Your task to perform on an android device: change your default location settings in chrome Image 0: 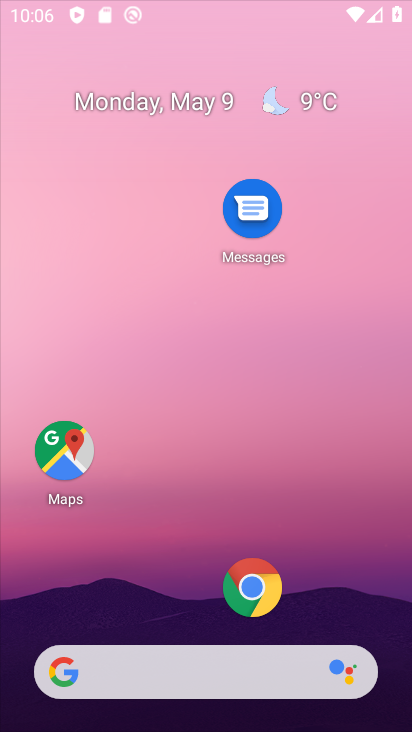
Step 0: drag from (222, 620) to (280, 107)
Your task to perform on an android device: change your default location settings in chrome Image 1: 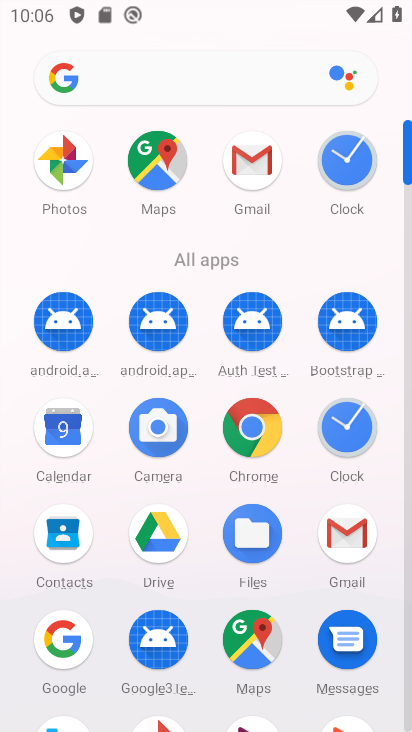
Step 1: click (259, 435)
Your task to perform on an android device: change your default location settings in chrome Image 2: 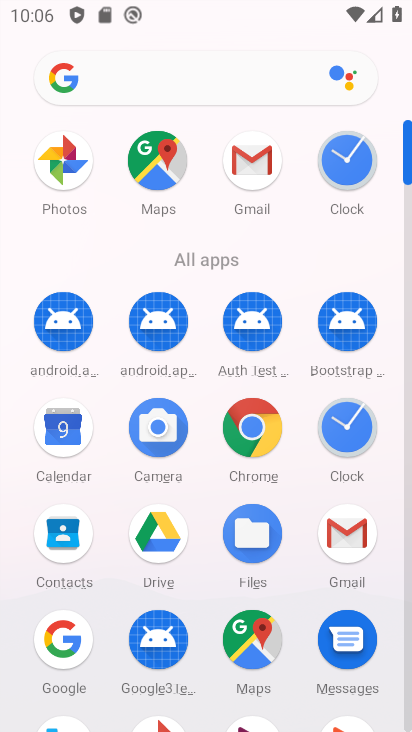
Step 2: click (259, 435)
Your task to perform on an android device: change your default location settings in chrome Image 3: 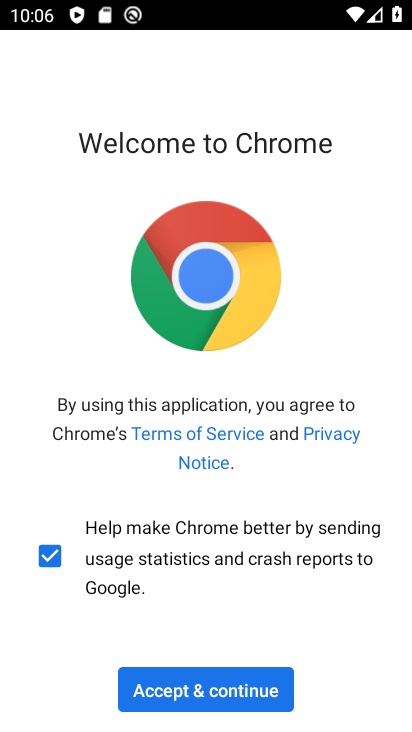
Step 3: click (230, 688)
Your task to perform on an android device: change your default location settings in chrome Image 4: 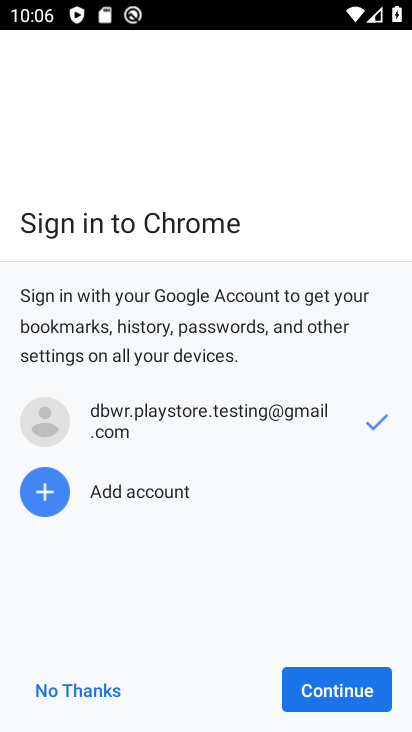
Step 4: click (330, 703)
Your task to perform on an android device: change your default location settings in chrome Image 5: 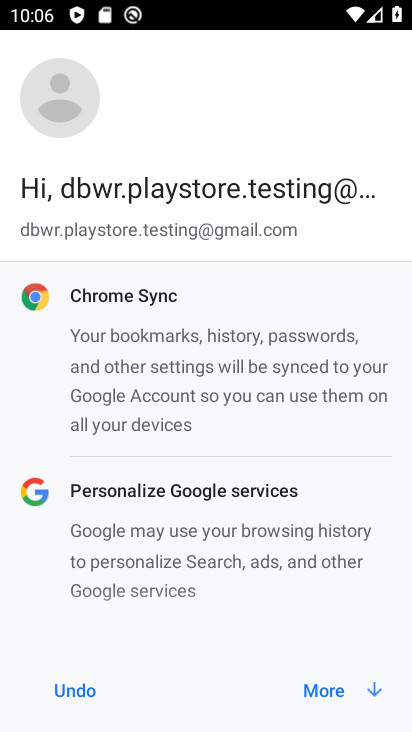
Step 5: click (326, 699)
Your task to perform on an android device: change your default location settings in chrome Image 6: 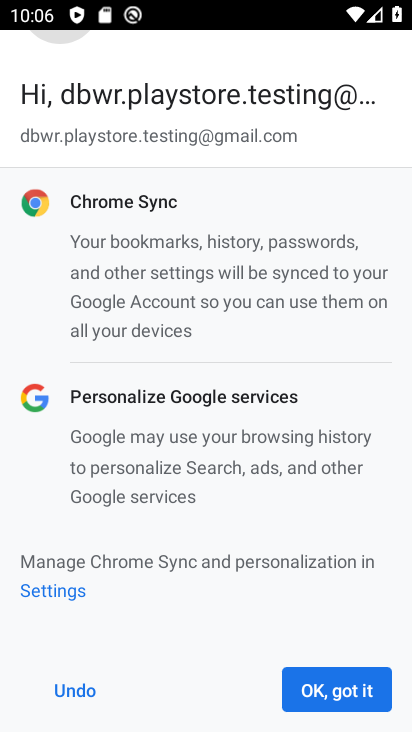
Step 6: click (323, 692)
Your task to perform on an android device: change your default location settings in chrome Image 7: 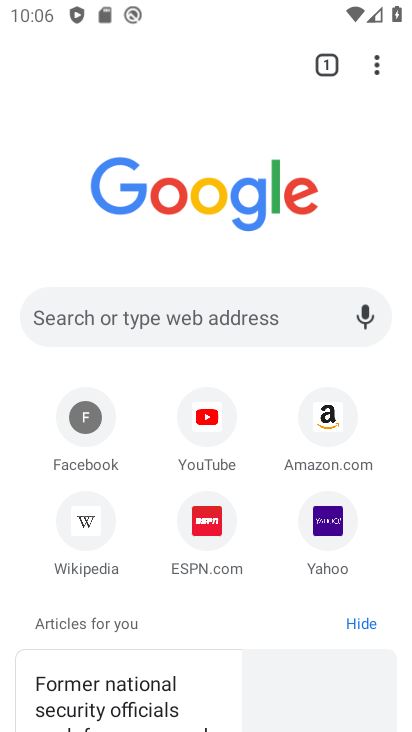
Step 7: click (376, 75)
Your task to perform on an android device: change your default location settings in chrome Image 8: 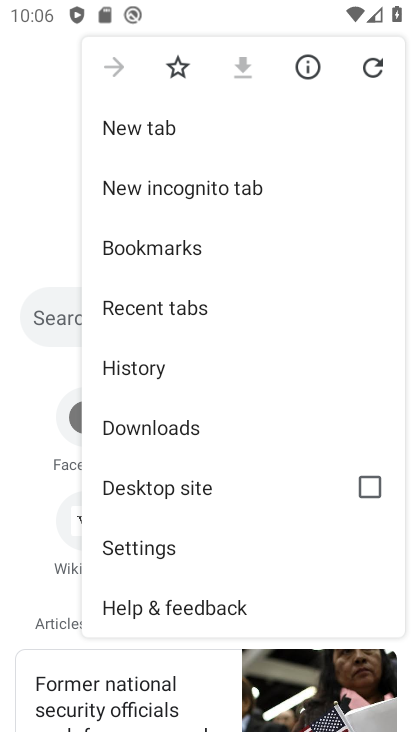
Step 8: click (181, 547)
Your task to perform on an android device: change your default location settings in chrome Image 9: 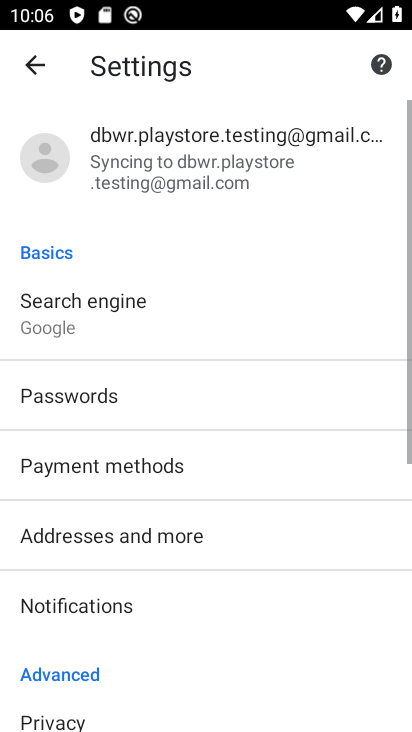
Step 9: drag from (247, 641) to (328, 170)
Your task to perform on an android device: change your default location settings in chrome Image 10: 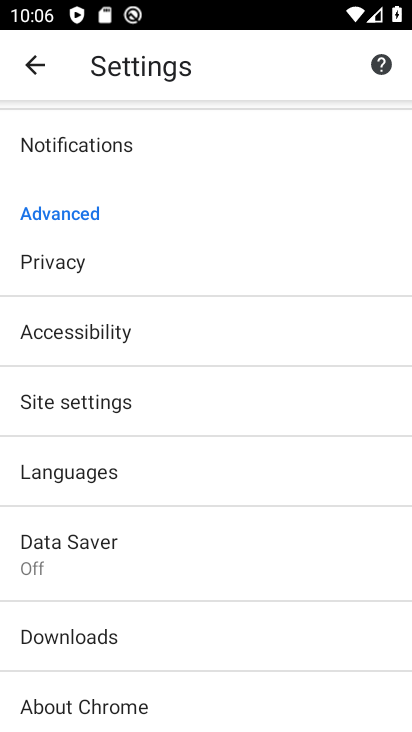
Step 10: drag from (193, 647) to (254, 186)
Your task to perform on an android device: change your default location settings in chrome Image 11: 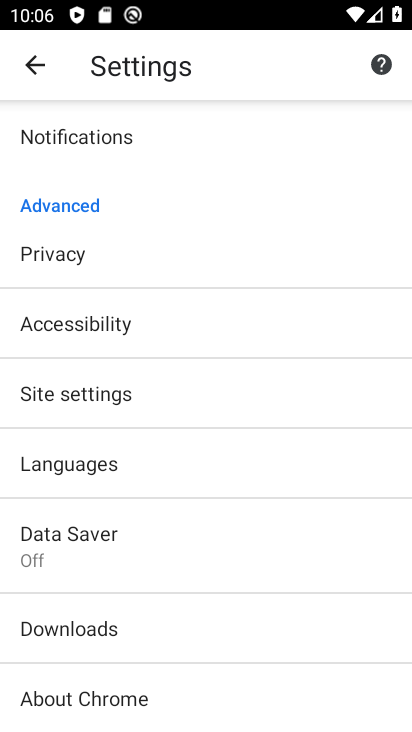
Step 11: drag from (210, 489) to (220, 344)
Your task to perform on an android device: change your default location settings in chrome Image 12: 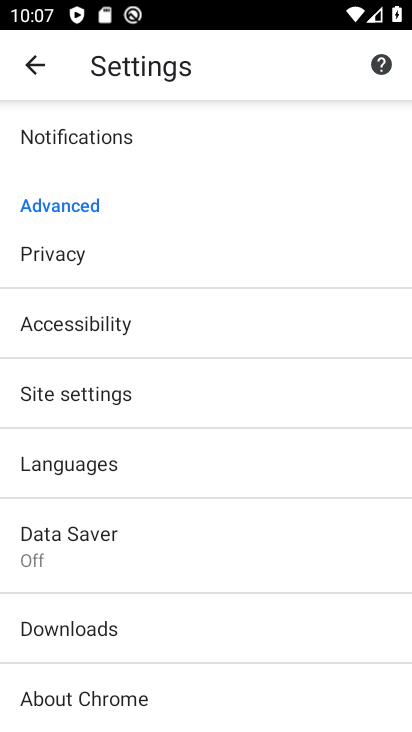
Step 12: drag from (215, 618) to (265, 344)
Your task to perform on an android device: change your default location settings in chrome Image 13: 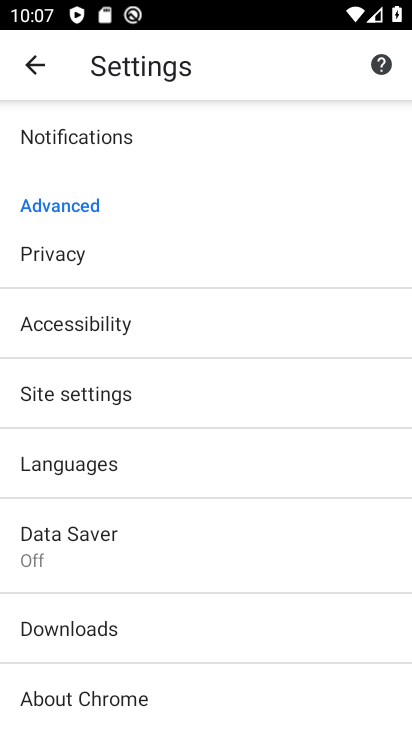
Step 13: click (195, 396)
Your task to perform on an android device: change your default location settings in chrome Image 14: 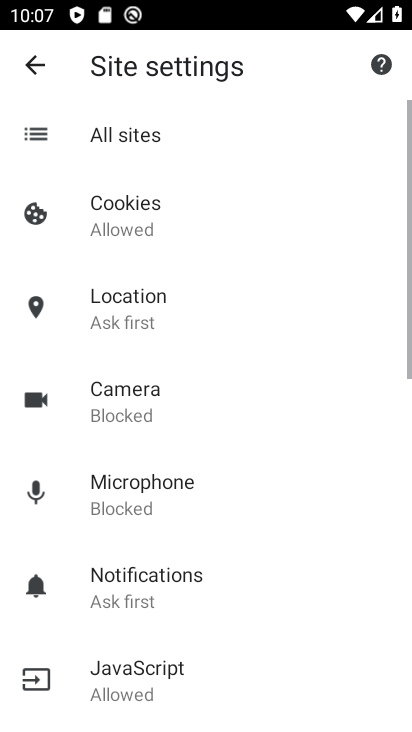
Step 14: click (195, 396)
Your task to perform on an android device: change your default location settings in chrome Image 15: 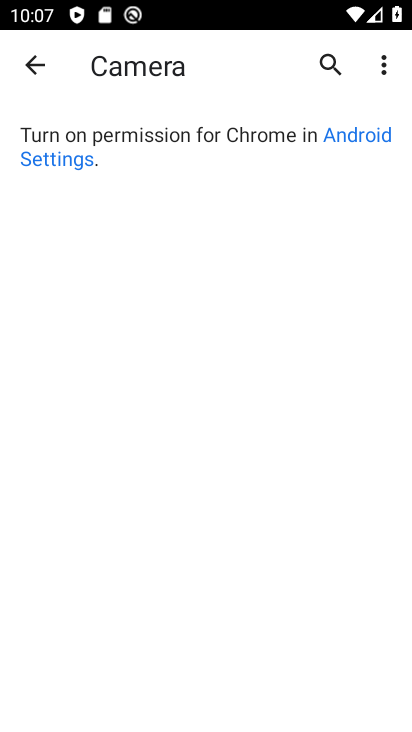
Step 15: drag from (248, 306) to (233, 454)
Your task to perform on an android device: change your default location settings in chrome Image 16: 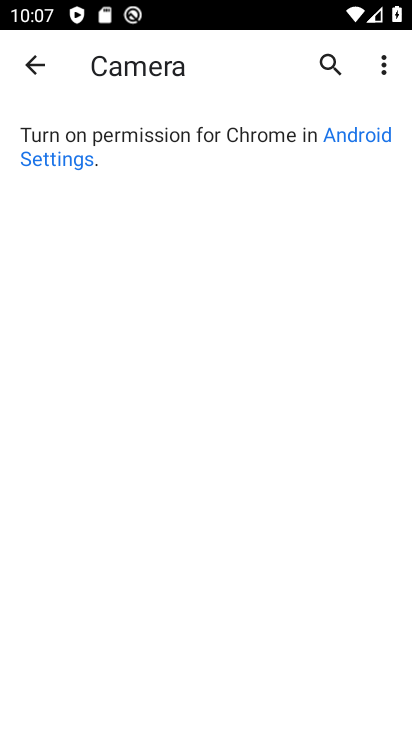
Step 16: drag from (266, 356) to (281, 501)
Your task to perform on an android device: change your default location settings in chrome Image 17: 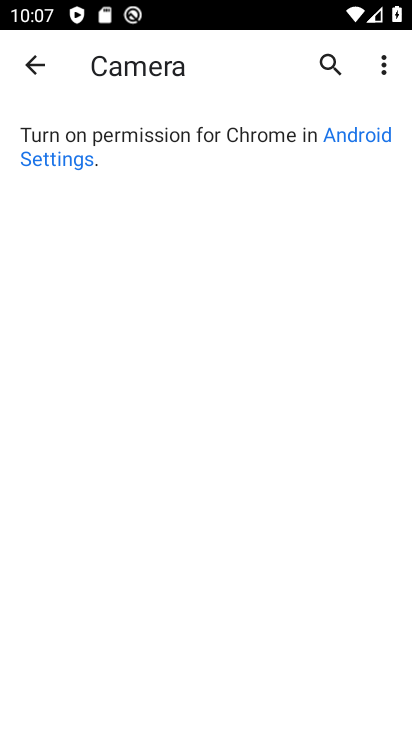
Step 17: click (26, 63)
Your task to perform on an android device: change your default location settings in chrome Image 18: 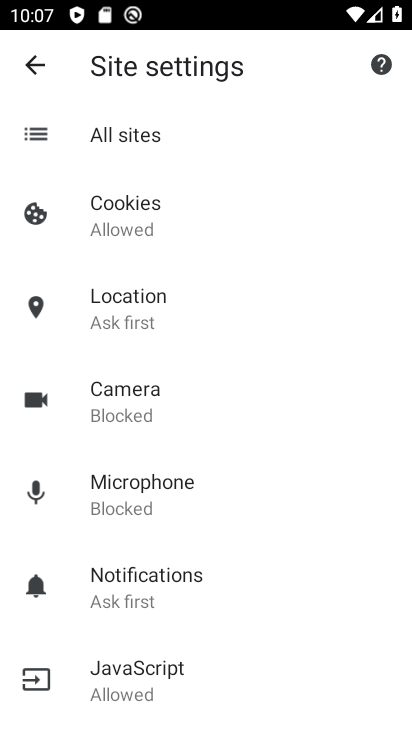
Step 18: drag from (235, 478) to (237, 421)
Your task to perform on an android device: change your default location settings in chrome Image 19: 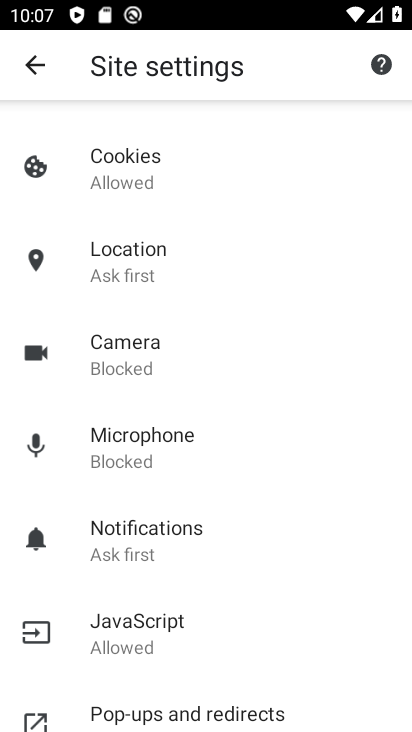
Step 19: drag from (246, 526) to (247, 396)
Your task to perform on an android device: change your default location settings in chrome Image 20: 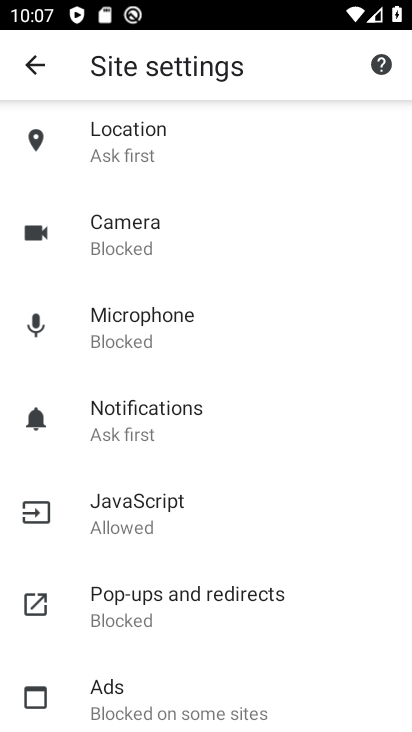
Step 20: drag from (191, 534) to (254, 304)
Your task to perform on an android device: change your default location settings in chrome Image 21: 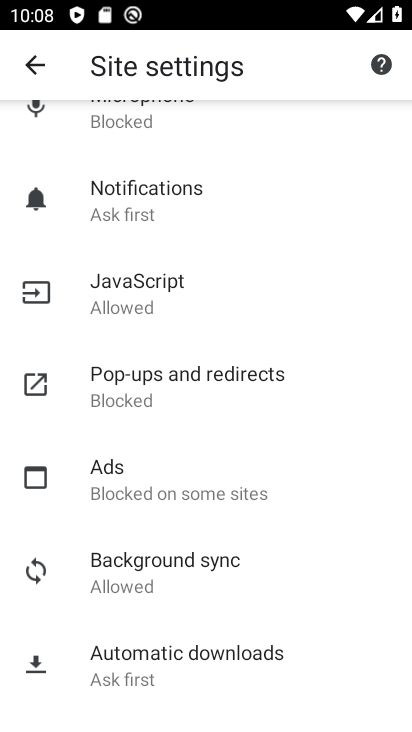
Step 21: drag from (159, 328) to (224, 598)
Your task to perform on an android device: change your default location settings in chrome Image 22: 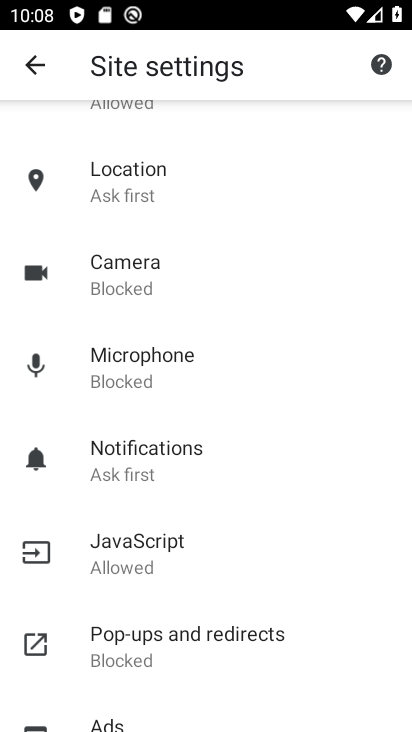
Step 22: click (232, 261)
Your task to perform on an android device: change your default location settings in chrome Image 23: 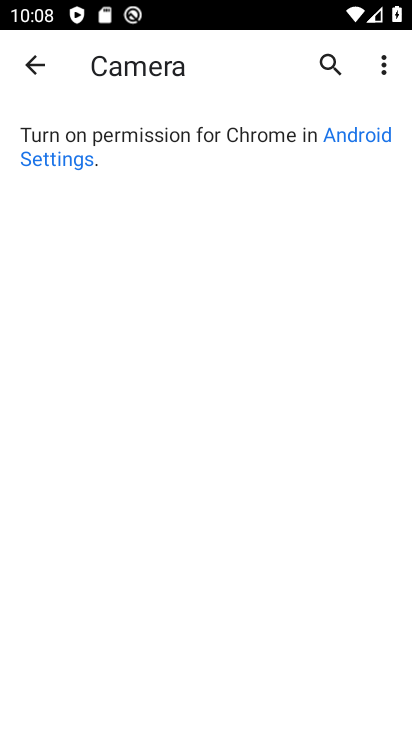
Step 23: click (31, 65)
Your task to perform on an android device: change your default location settings in chrome Image 24: 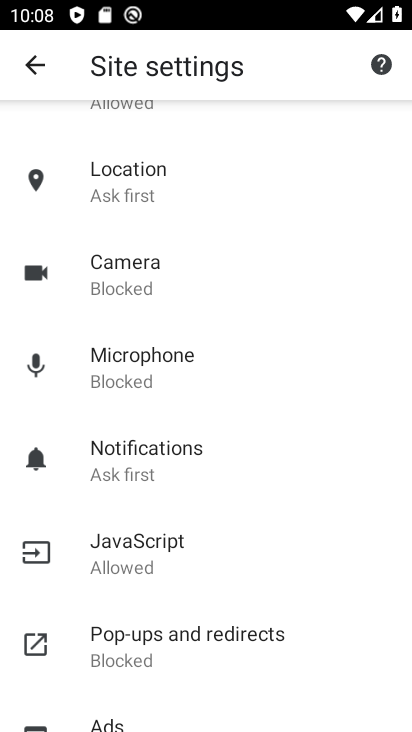
Step 24: drag from (272, 462) to (256, 392)
Your task to perform on an android device: change your default location settings in chrome Image 25: 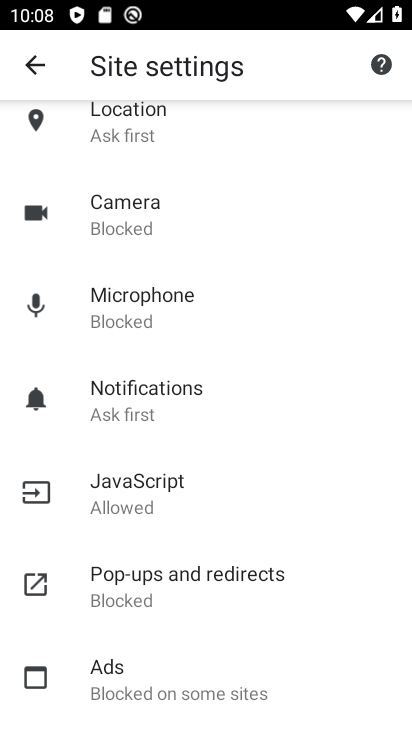
Step 25: drag from (274, 245) to (259, 725)
Your task to perform on an android device: change your default location settings in chrome Image 26: 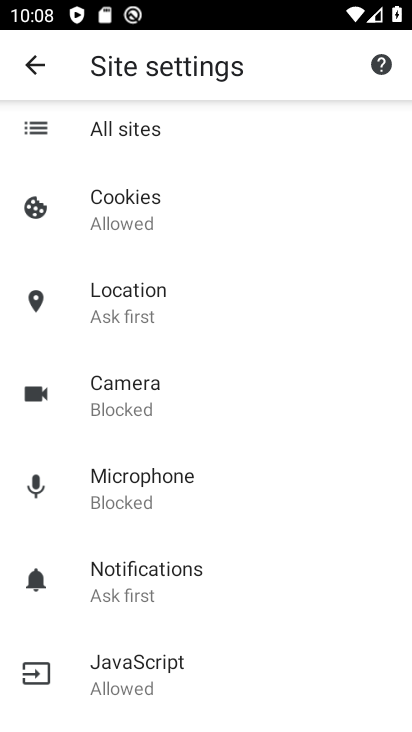
Step 26: click (163, 284)
Your task to perform on an android device: change your default location settings in chrome Image 27: 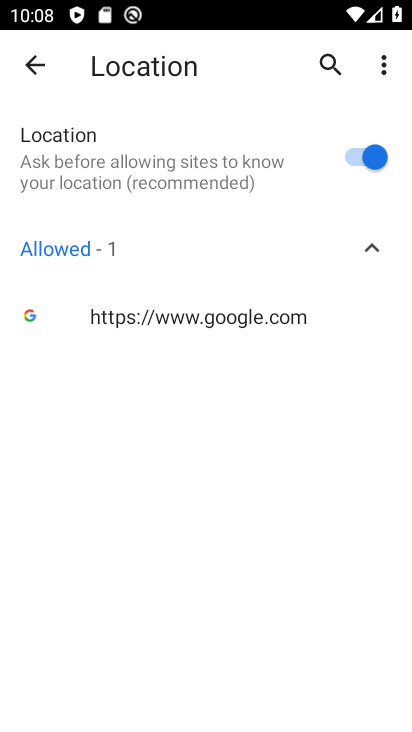
Step 27: drag from (208, 647) to (237, 459)
Your task to perform on an android device: change your default location settings in chrome Image 28: 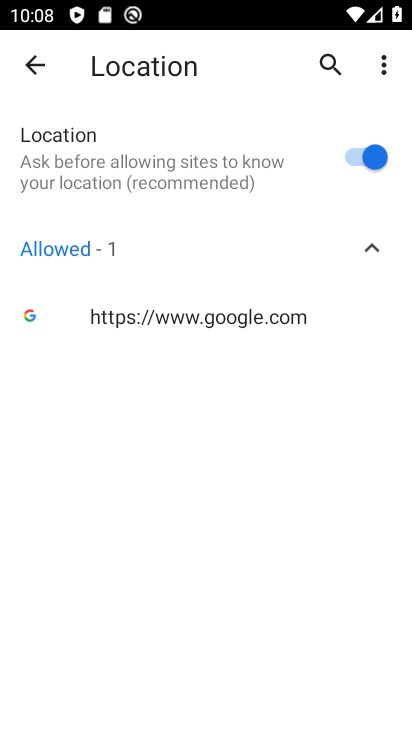
Step 28: click (359, 154)
Your task to perform on an android device: change your default location settings in chrome Image 29: 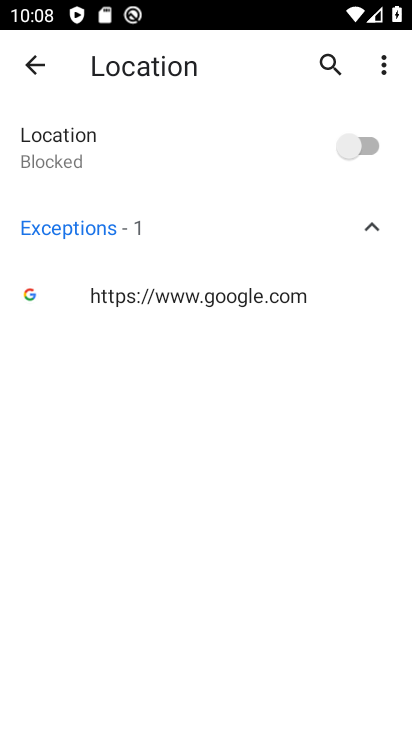
Step 29: task complete